Your task to perform on an android device: Search for seafood restaurants on Google Maps Image 0: 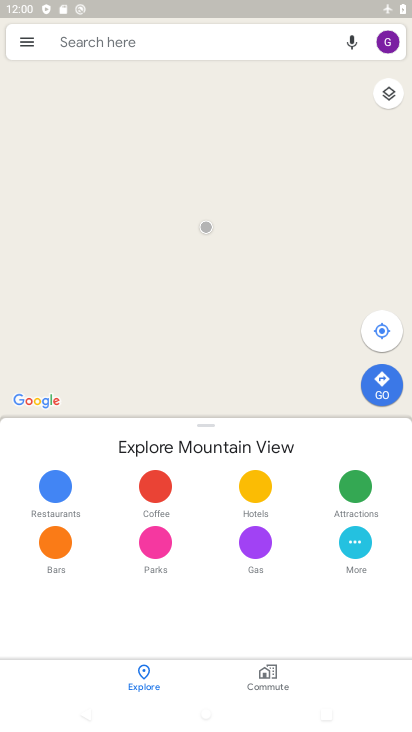
Step 0: click (117, 52)
Your task to perform on an android device: Search for seafood restaurants on Google Maps Image 1: 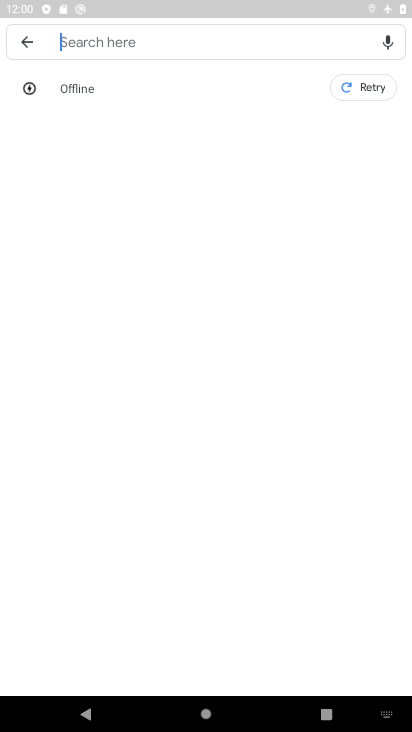
Step 1: task complete